Your task to perform on an android device: Turn on the flashlight Image 0: 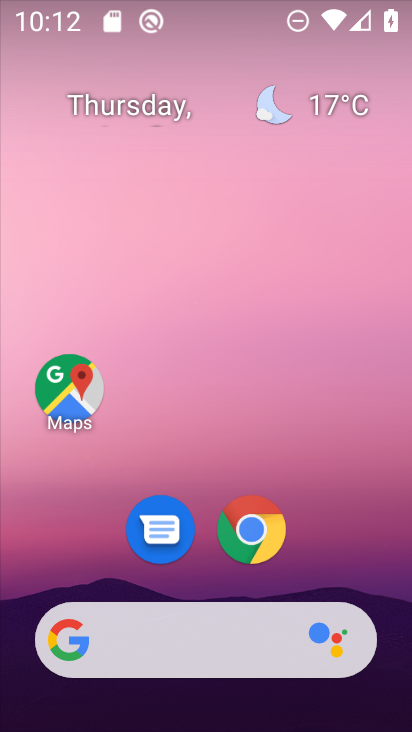
Step 0: drag from (373, 482) to (372, 96)
Your task to perform on an android device: Turn on the flashlight Image 1: 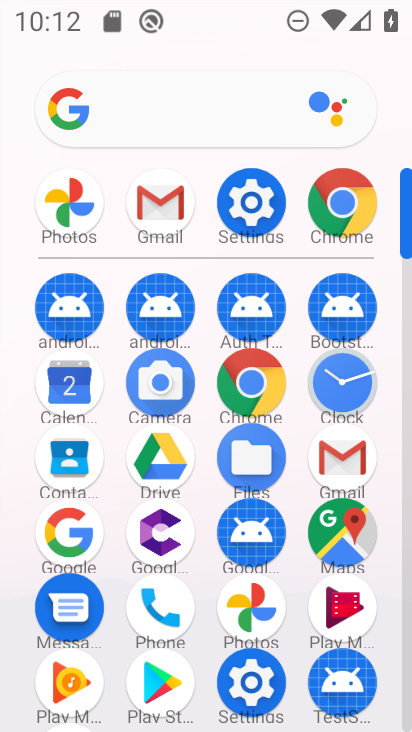
Step 1: click (249, 672)
Your task to perform on an android device: Turn on the flashlight Image 2: 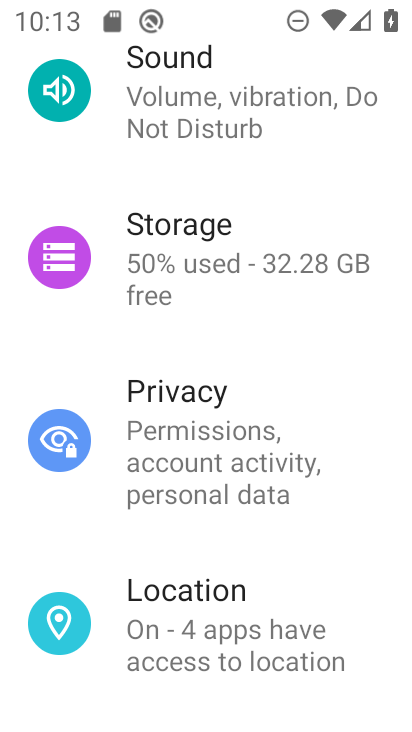
Step 2: drag from (235, 97) to (229, 431)
Your task to perform on an android device: Turn on the flashlight Image 3: 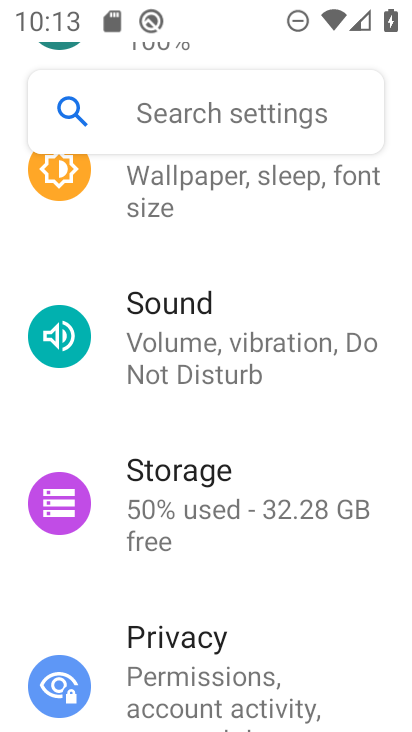
Step 3: click (178, 189)
Your task to perform on an android device: Turn on the flashlight Image 4: 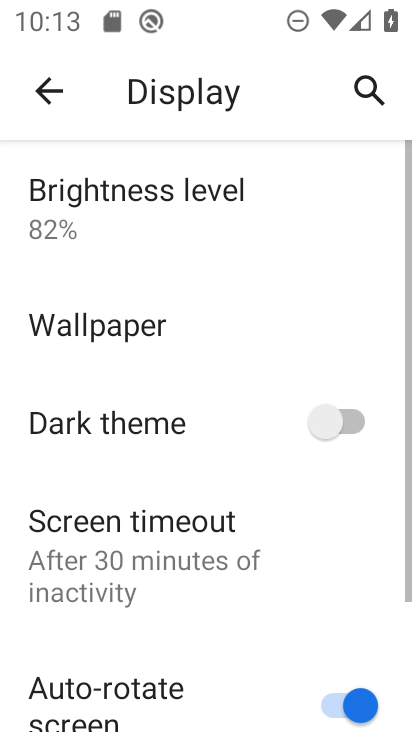
Step 4: task complete